Your task to perform on an android device: Open settings on Google Maps Image 0: 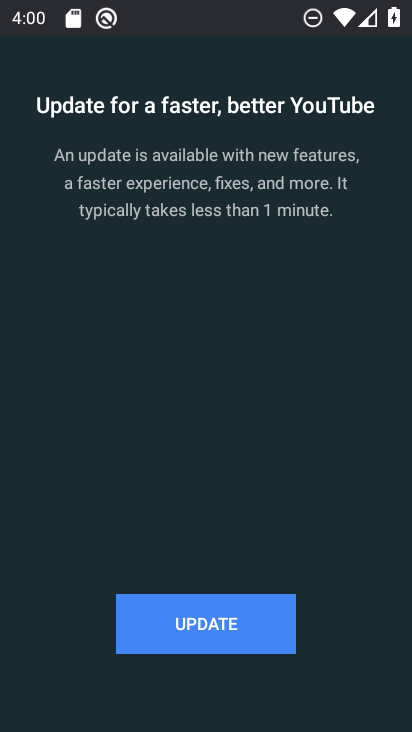
Step 0: press home button
Your task to perform on an android device: Open settings on Google Maps Image 1: 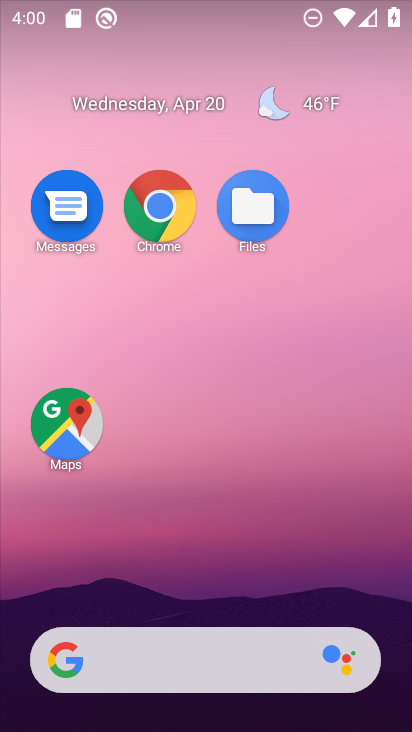
Step 1: click (73, 414)
Your task to perform on an android device: Open settings on Google Maps Image 2: 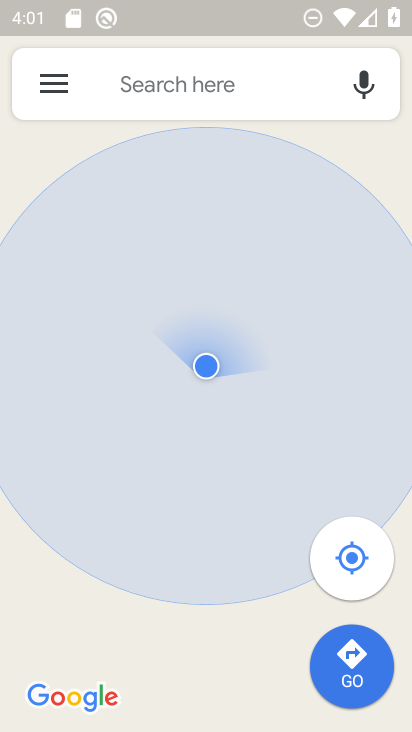
Step 2: click (63, 94)
Your task to perform on an android device: Open settings on Google Maps Image 3: 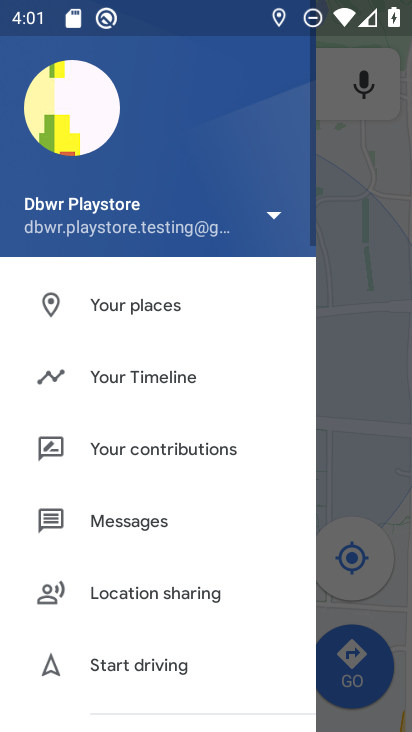
Step 3: drag from (167, 427) to (241, 145)
Your task to perform on an android device: Open settings on Google Maps Image 4: 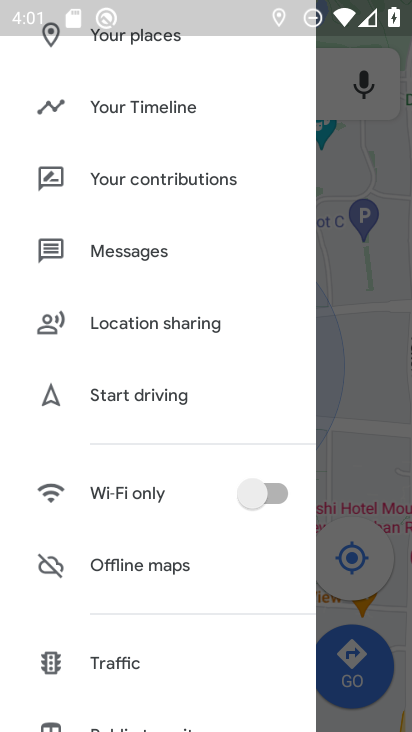
Step 4: drag from (125, 595) to (235, 85)
Your task to perform on an android device: Open settings on Google Maps Image 5: 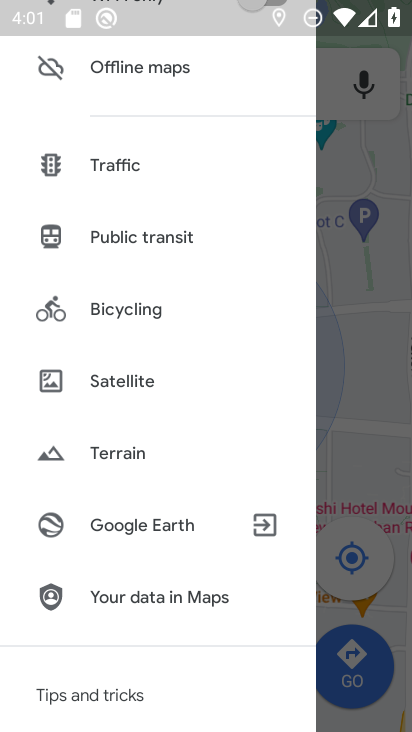
Step 5: drag from (132, 581) to (198, 210)
Your task to perform on an android device: Open settings on Google Maps Image 6: 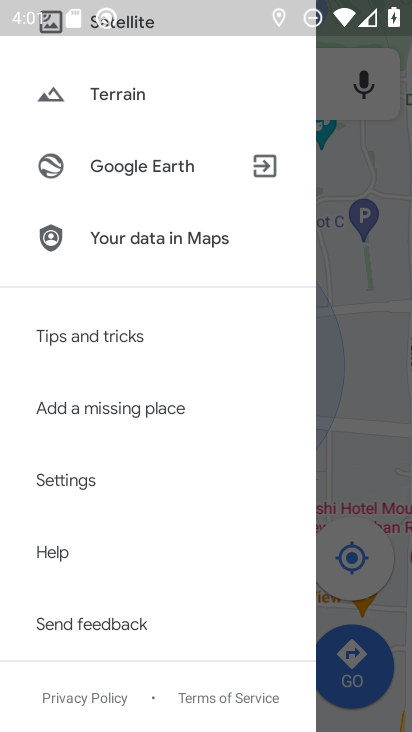
Step 6: click (69, 482)
Your task to perform on an android device: Open settings on Google Maps Image 7: 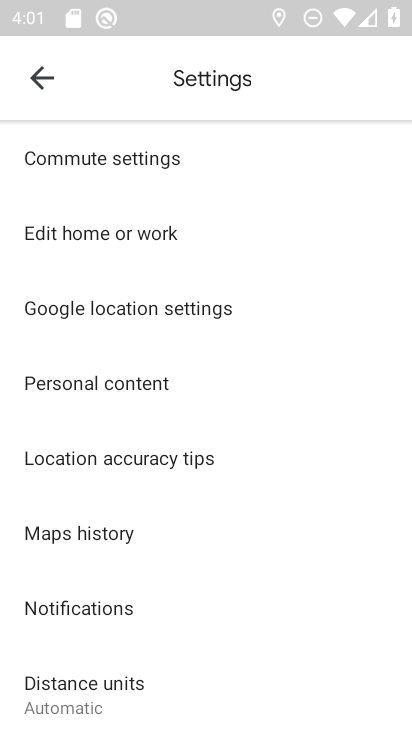
Step 7: task complete